Your task to perform on an android device: Open eBay Image 0: 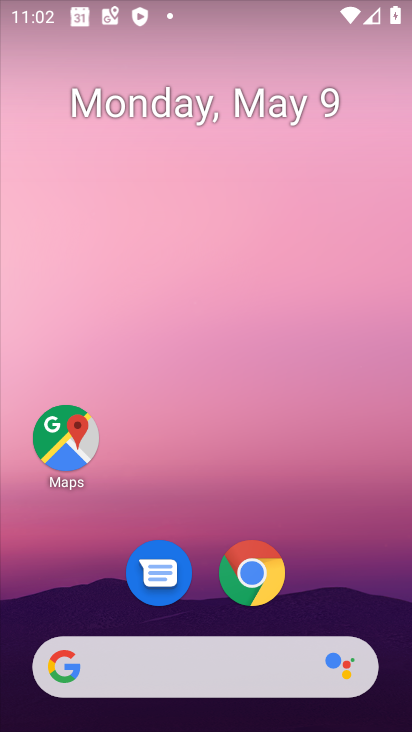
Step 0: drag from (220, 605) to (332, 220)
Your task to perform on an android device: Open eBay Image 1: 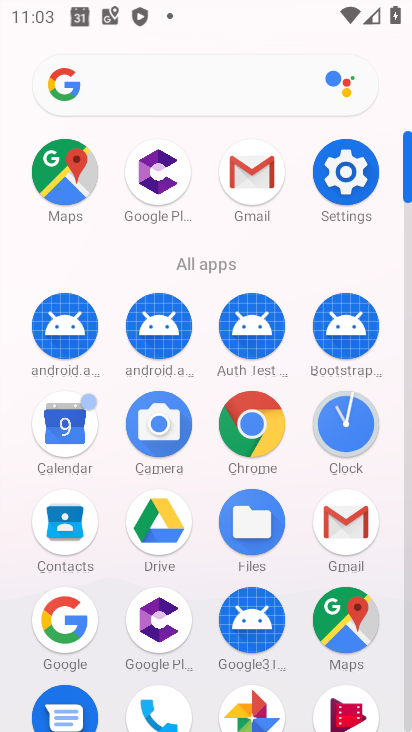
Step 1: click (187, 85)
Your task to perform on an android device: Open eBay Image 2: 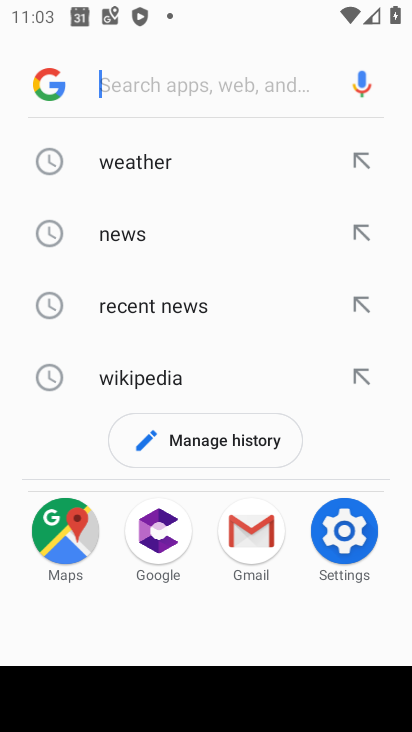
Step 2: type "ebay"
Your task to perform on an android device: Open eBay Image 3: 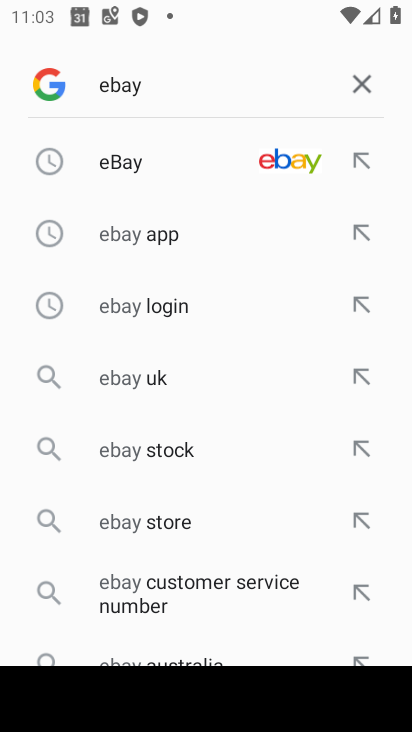
Step 3: click (152, 163)
Your task to perform on an android device: Open eBay Image 4: 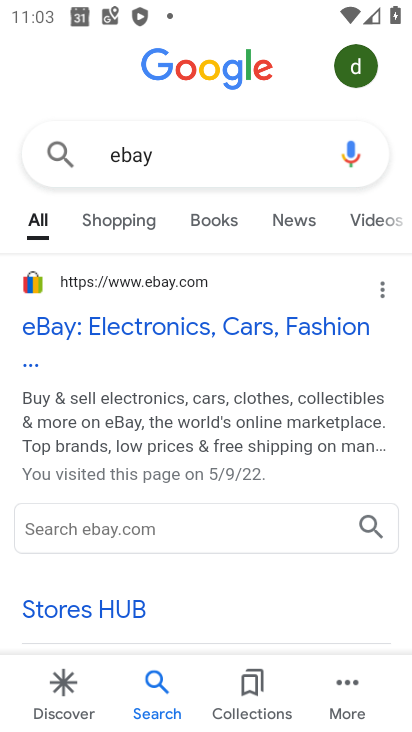
Step 4: click (116, 333)
Your task to perform on an android device: Open eBay Image 5: 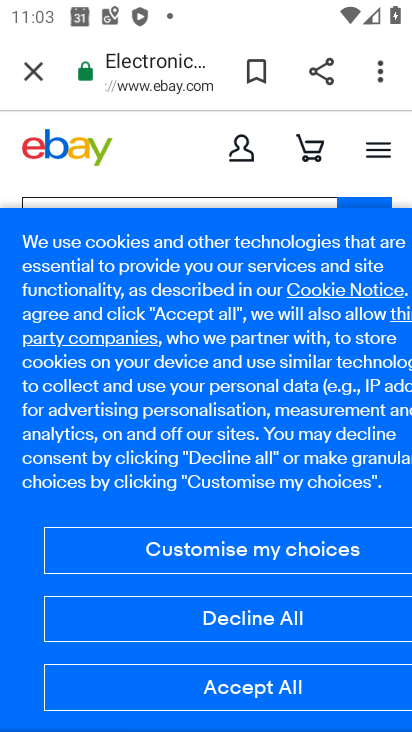
Step 5: task complete